Your task to perform on an android device: Go to Wikipedia Image 0: 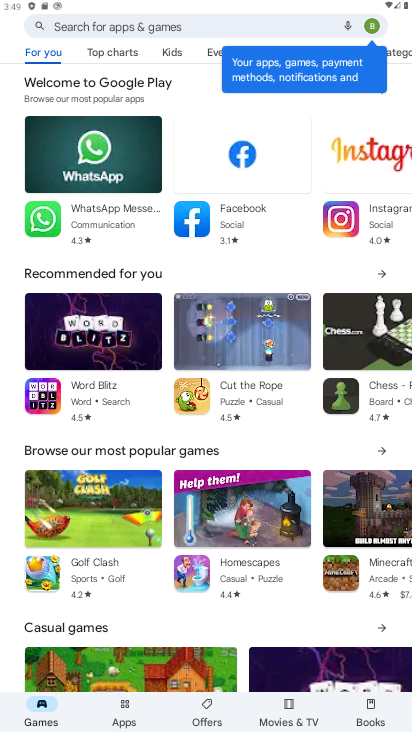
Step 0: press home button
Your task to perform on an android device: Go to Wikipedia Image 1: 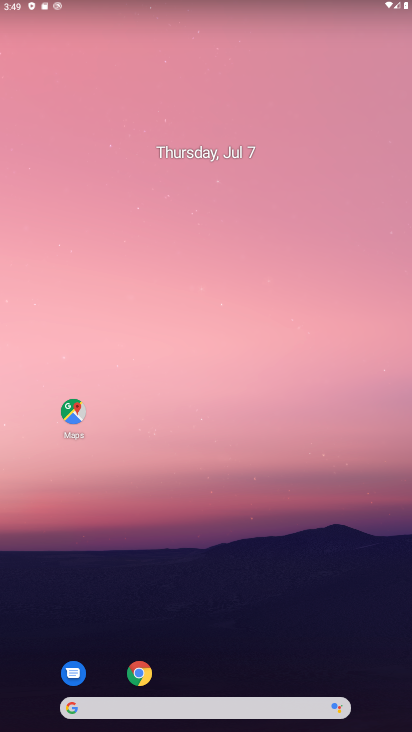
Step 1: click (136, 669)
Your task to perform on an android device: Go to Wikipedia Image 2: 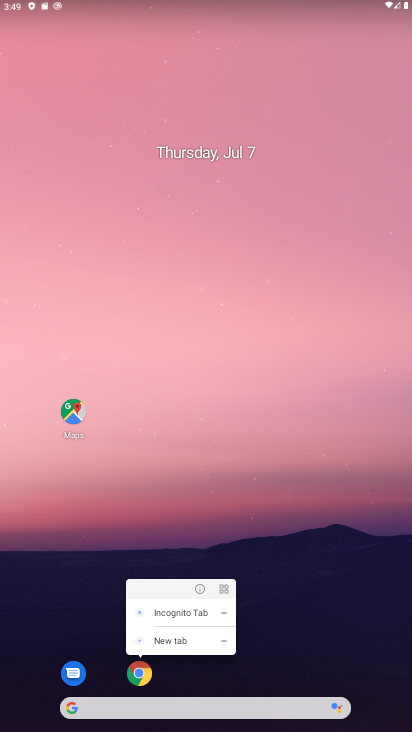
Step 2: click (137, 667)
Your task to perform on an android device: Go to Wikipedia Image 3: 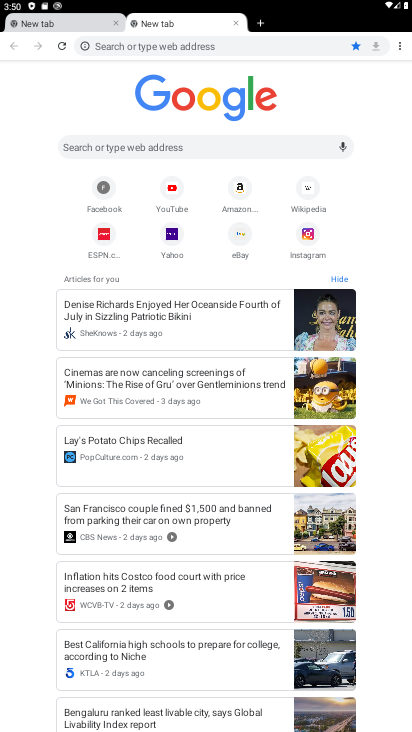
Step 3: click (303, 184)
Your task to perform on an android device: Go to Wikipedia Image 4: 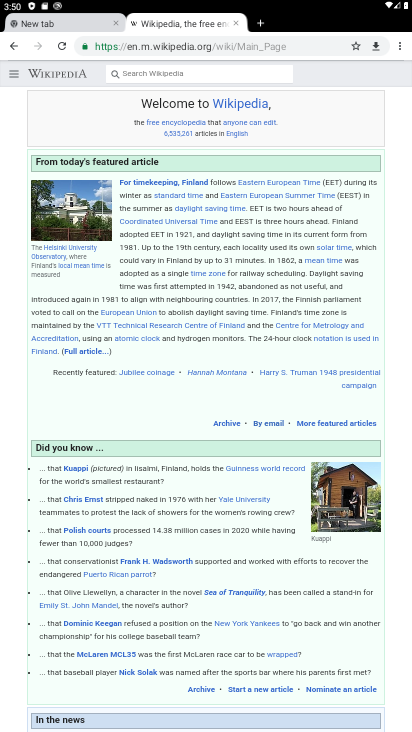
Step 4: task complete